Your task to perform on an android device: change notification settings in the gmail app Image 0: 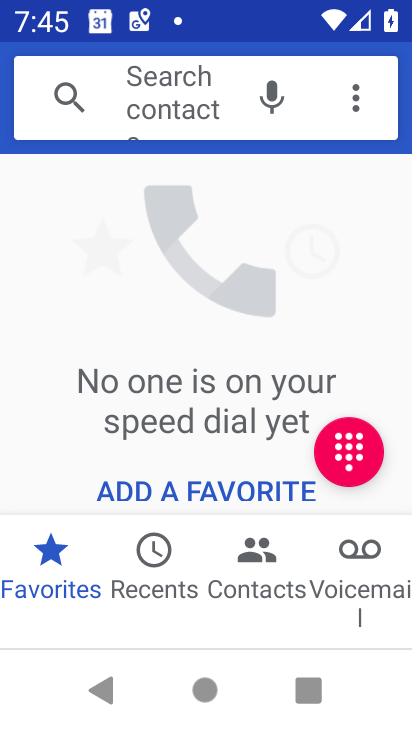
Step 0: press home button
Your task to perform on an android device: change notification settings in the gmail app Image 1: 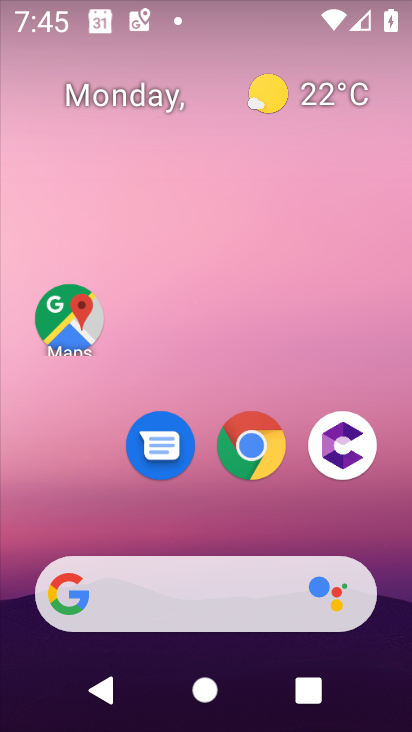
Step 1: drag from (296, 410) to (324, 70)
Your task to perform on an android device: change notification settings in the gmail app Image 2: 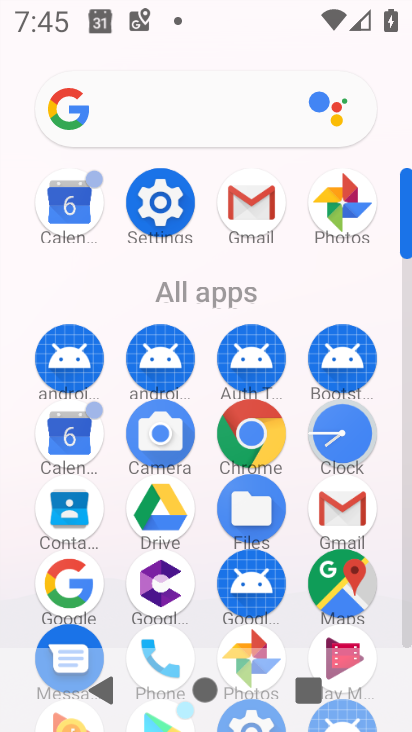
Step 2: click (257, 219)
Your task to perform on an android device: change notification settings in the gmail app Image 3: 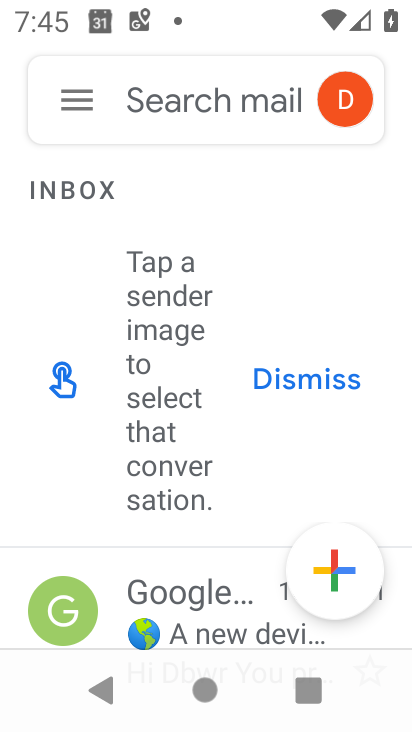
Step 3: click (74, 96)
Your task to perform on an android device: change notification settings in the gmail app Image 4: 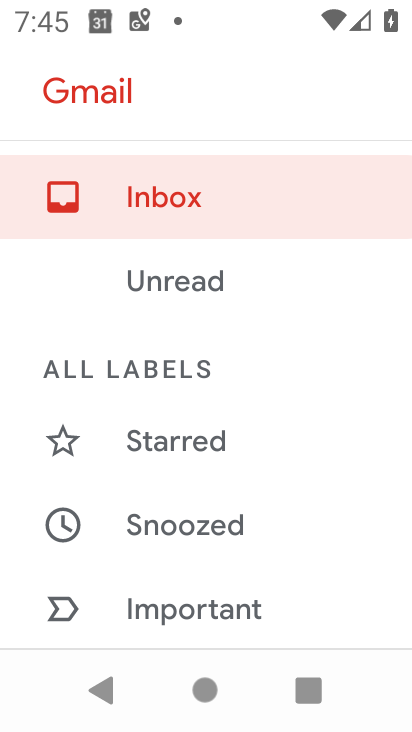
Step 4: drag from (16, 601) to (51, 101)
Your task to perform on an android device: change notification settings in the gmail app Image 5: 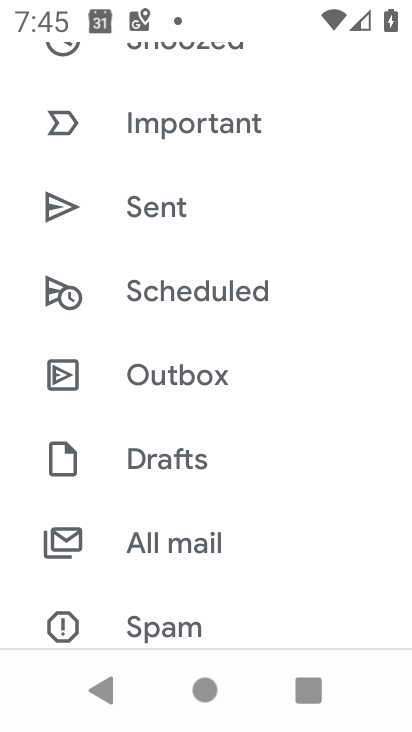
Step 5: drag from (30, 635) to (69, 169)
Your task to perform on an android device: change notification settings in the gmail app Image 6: 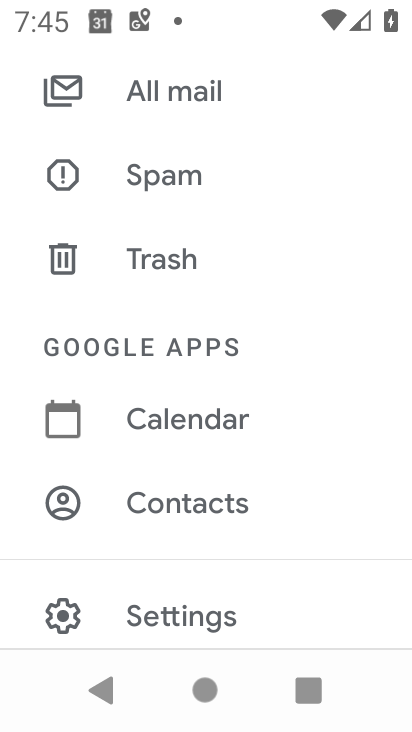
Step 6: click (159, 620)
Your task to perform on an android device: change notification settings in the gmail app Image 7: 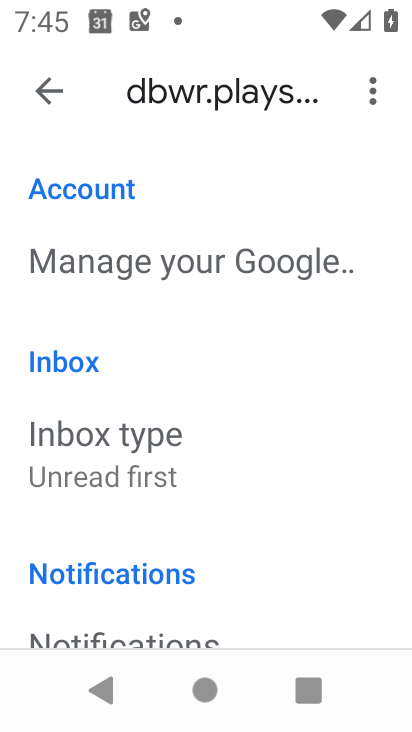
Step 7: drag from (353, 377) to (296, 101)
Your task to perform on an android device: change notification settings in the gmail app Image 8: 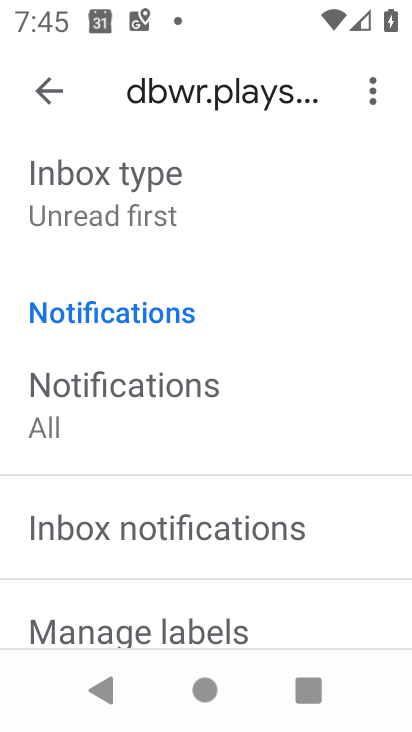
Step 8: drag from (361, 395) to (380, 136)
Your task to perform on an android device: change notification settings in the gmail app Image 9: 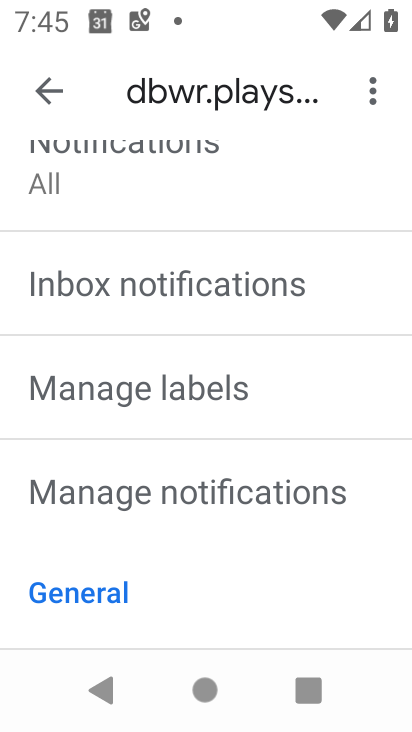
Step 9: click (297, 493)
Your task to perform on an android device: change notification settings in the gmail app Image 10: 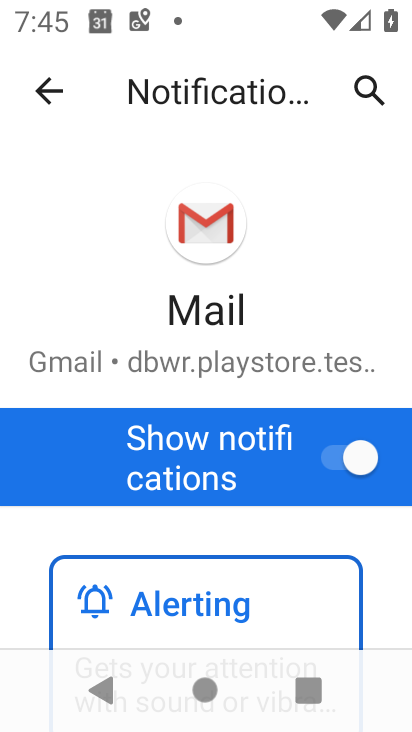
Step 10: task complete